Your task to perform on an android device: Toggle the flashlight Image 0: 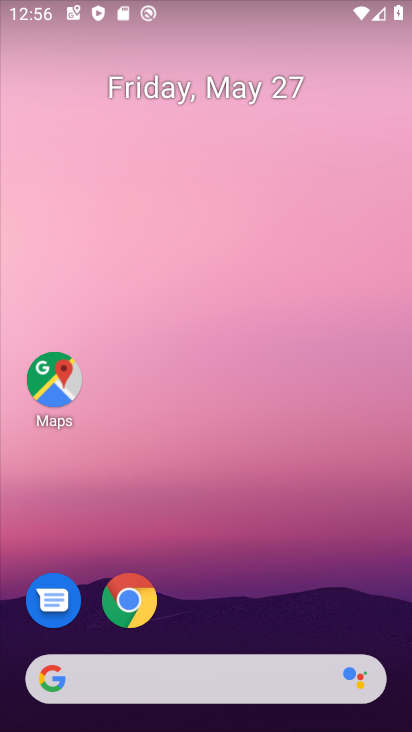
Step 0: drag from (271, 583) to (218, 5)
Your task to perform on an android device: Toggle the flashlight Image 1: 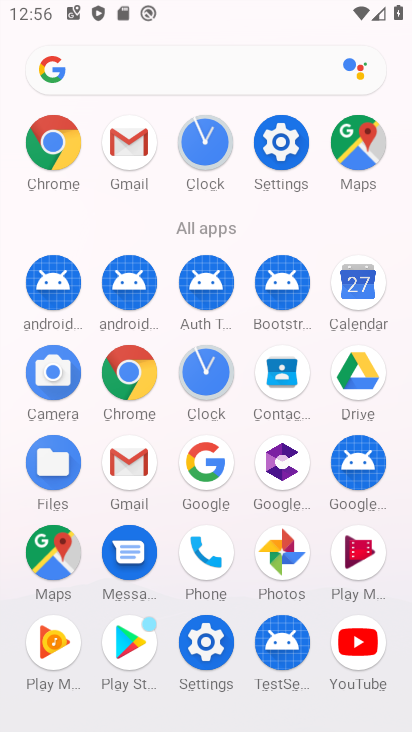
Step 1: click (281, 160)
Your task to perform on an android device: Toggle the flashlight Image 2: 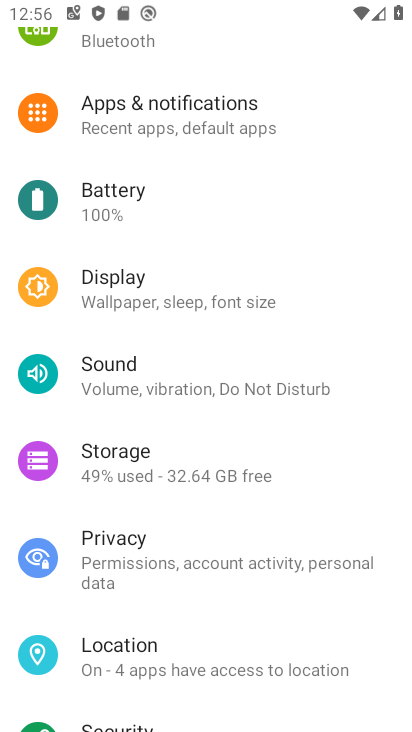
Step 2: click (194, 287)
Your task to perform on an android device: Toggle the flashlight Image 3: 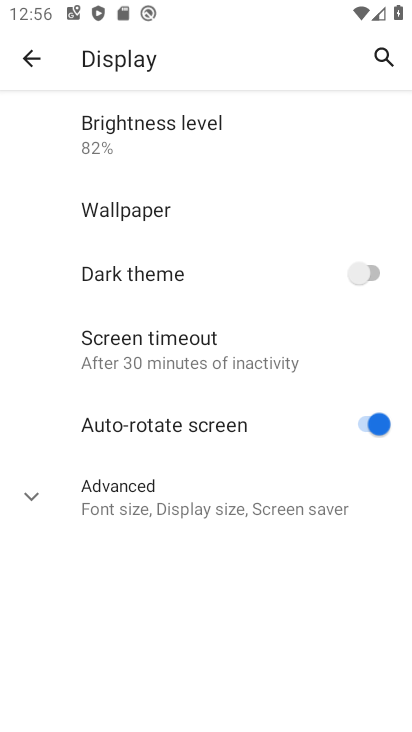
Step 3: click (155, 502)
Your task to perform on an android device: Toggle the flashlight Image 4: 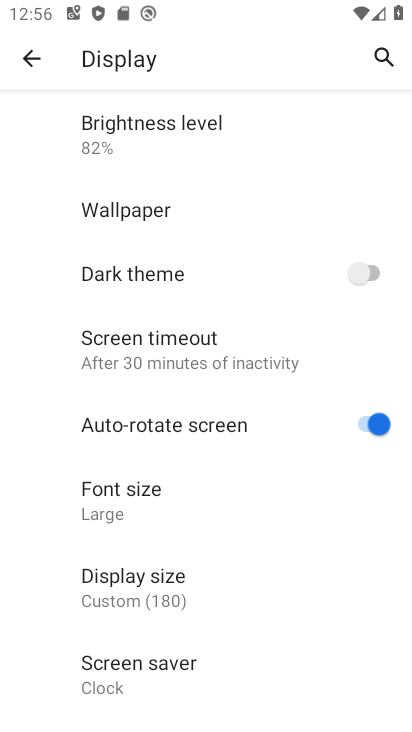
Step 4: task complete